Your task to perform on an android device: Open Youtube and go to the subscriptions tab Image 0: 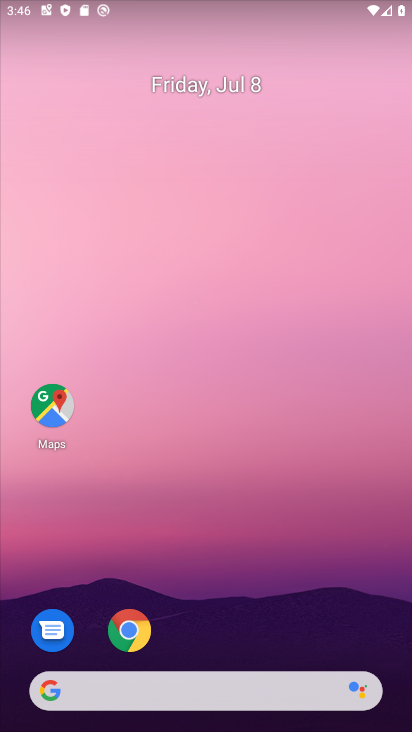
Step 0: drag from (288, 621) to (280, 137)
Your task to perform on an android device: Open Youtube and go to the subscriptions tab Image 1: 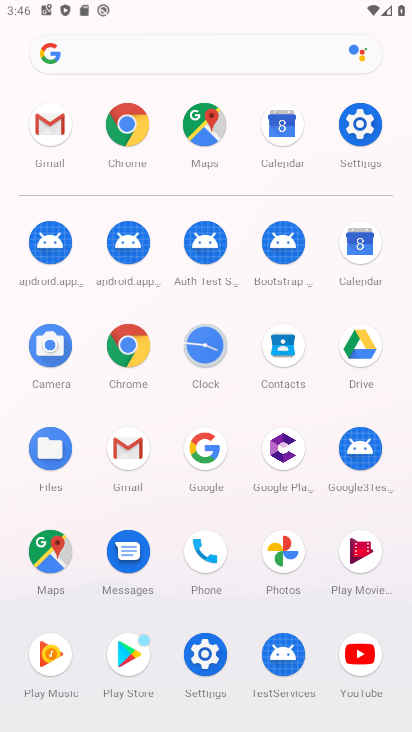
Step 1: click (341, 661)
Your task to perform on an android device: Open Youtube and go to the subscriptions tab Image 2: 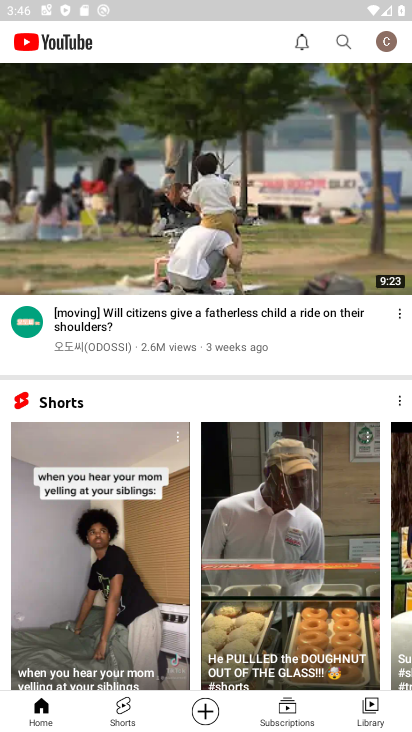
Step 2: click (282, 720)
Your task to perform on an android device: Open Youtube and go to the subscriptions tab Image 3: 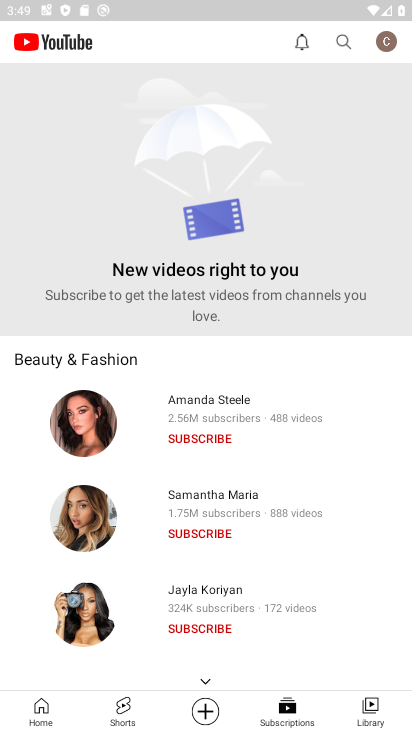
Step 3: task complete